Your task to perform on an android device: toggle priority inbox in the gmail app Image 0: 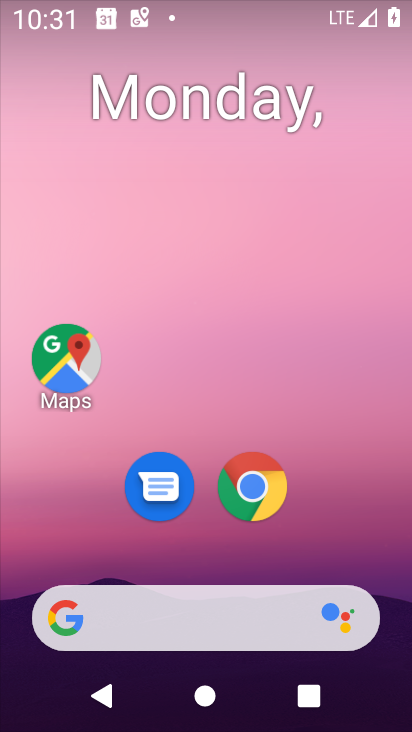
Step 0: drag from (362, 534) to (342, 34)
Your task to perform on an android device: toggle priority inbox in the gmail app Image 1: 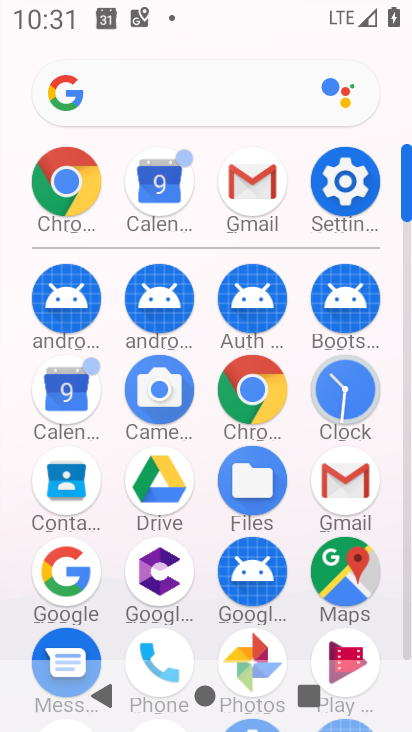
Step 1: drag from (2, 610) to (23, 246)
Your task to perform on an android device: toggle priority inbox in the gmail app Image 2: 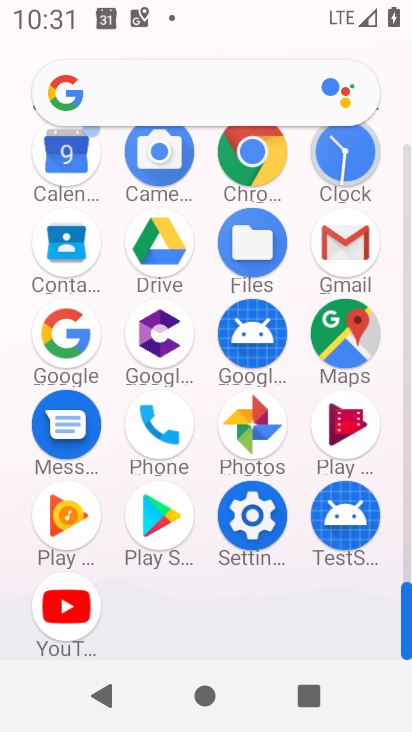
Step 2: click (342, 234)
Your task to perform on an android device: toggle priority inbox in the gmail app Image 3: 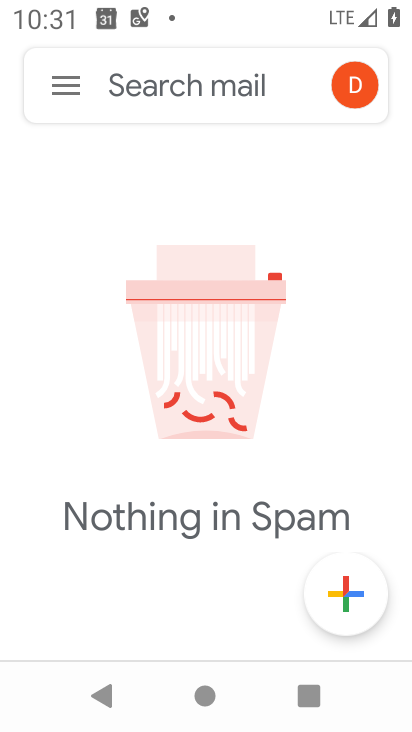
Step 3: click (76, 92)
Your task to perform on an android device: toggle priority inbox in the gmail app Image 4: 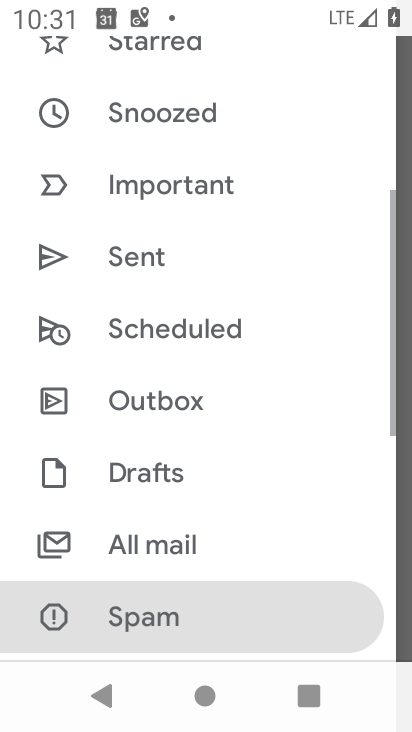
Step 4: drag from (232, 585) to (254, 120)
Your task to perform on an android device: toggle priority inbox in the gmail app Image 5: 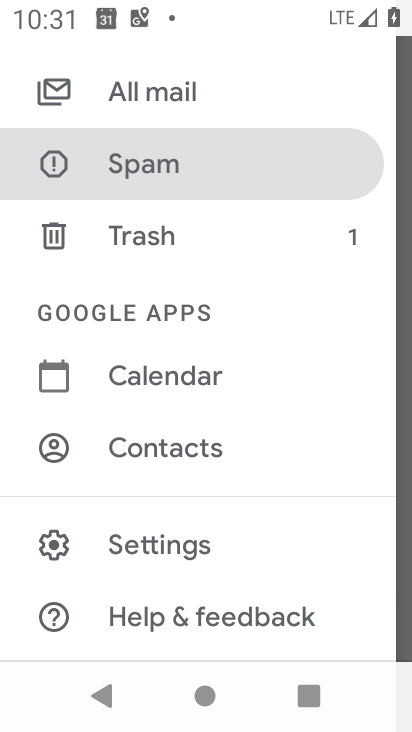
Step 5: click (188, 544)
Your task to perform on an android device: toggle priority inbox in the gmail app Image 6: 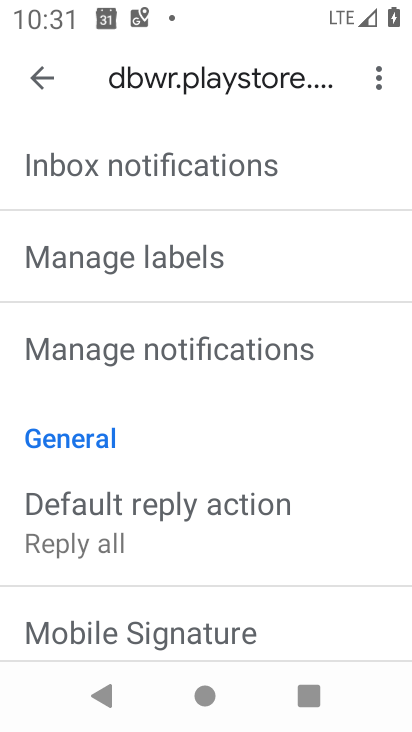
Step 6: drag from (236, 569) to (273, 123)
Your task to perform on an android device: toggle priority inbox in the gmail app Image 7: 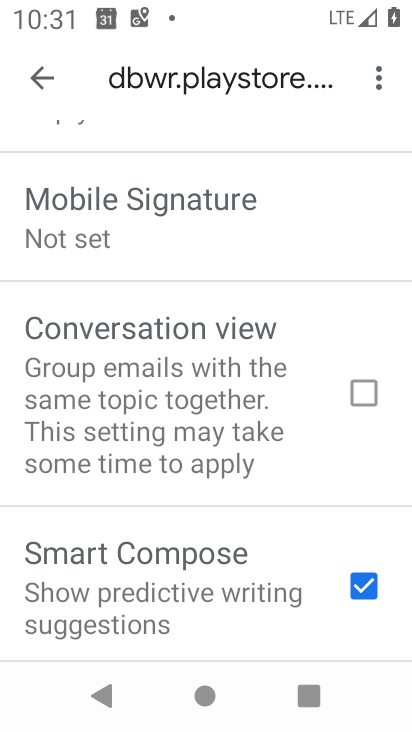
Step 7: drag from (253, 507) to (277, 107)
Your task to perform on an android device: toggle priority inbox in the gmail app Image 8: 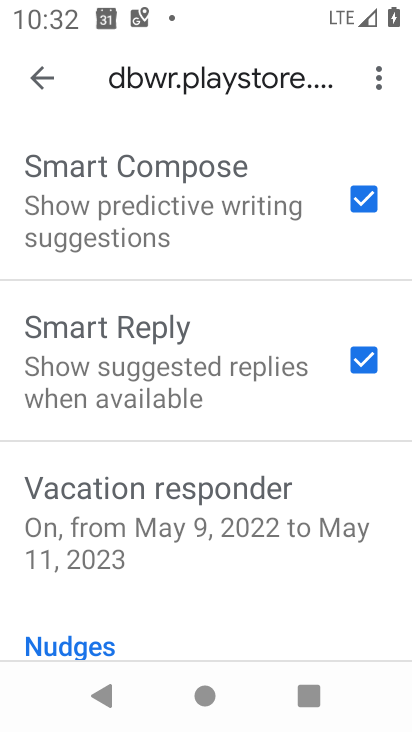
Step 8: drag from (249, 534) to (246, 148)
Your task to perform on an android device: toggle priority inbox in the gmail app Image 9: 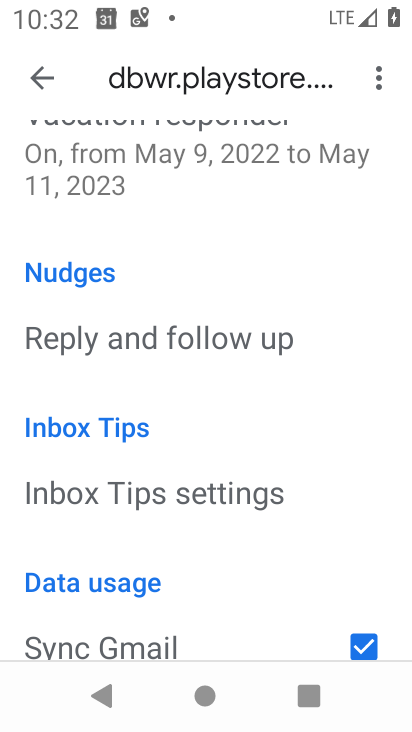
Step 9: drag from (238, 161) to (233, 558)
Your task to perform on an android device: toggle priority inbox in the gmail app Image 10: 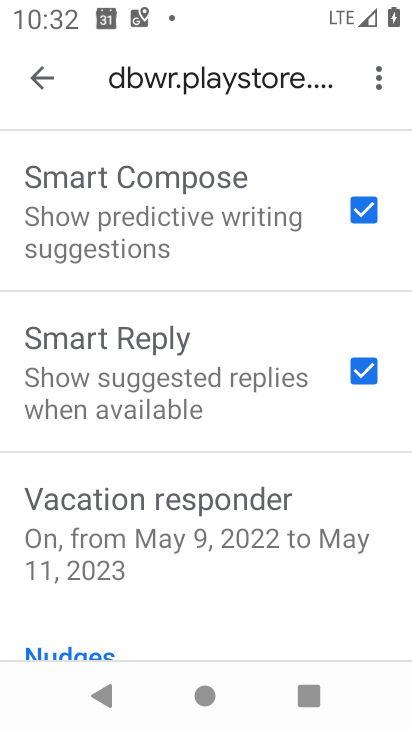
Step 10: drag from (212, 189) to (211, 478)
Your task to perform on an android device: toggle priority inbox in the gmail app Image 11: 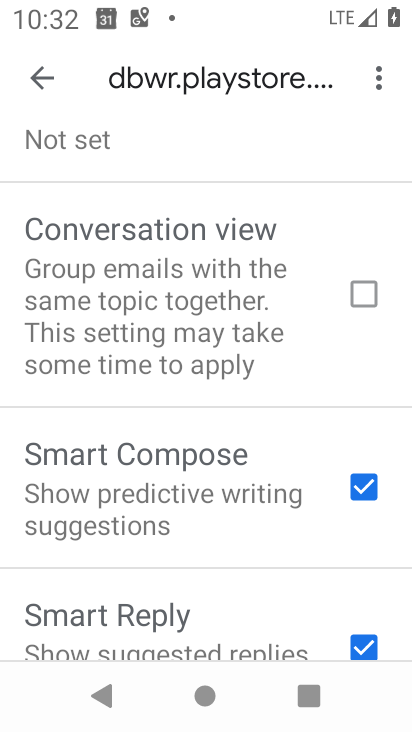
Step 11: drag from (176, 218) to (184, 509)
Your task to perform on an android device: toggle priority inbox in the gmail app Image 12: 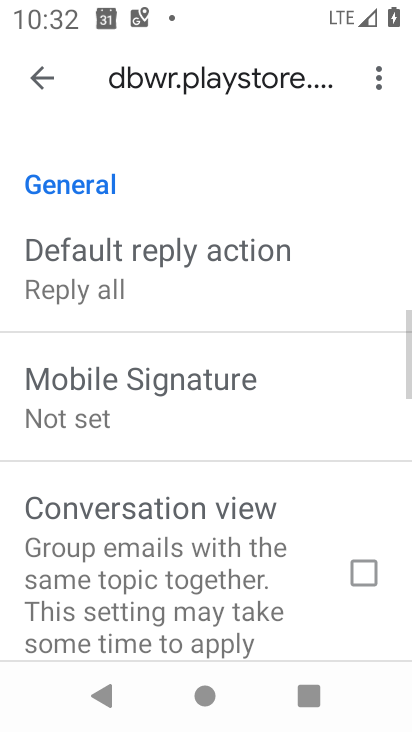
Step 12: drag from (207, 553) to (238, 147)
Your task to perform on an android device: toggle priority inbox in the gmail app Image 13: 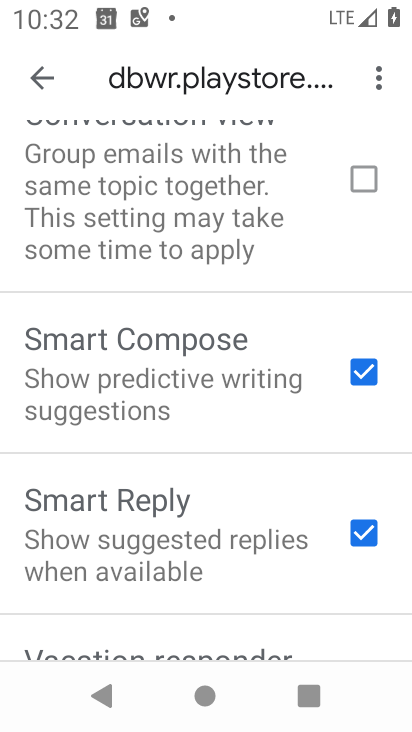
Step 13: drag from (233, 144) to (234, 516)
Your task to perform on an android device: toggle priority inbox in the gmail app Image 14: 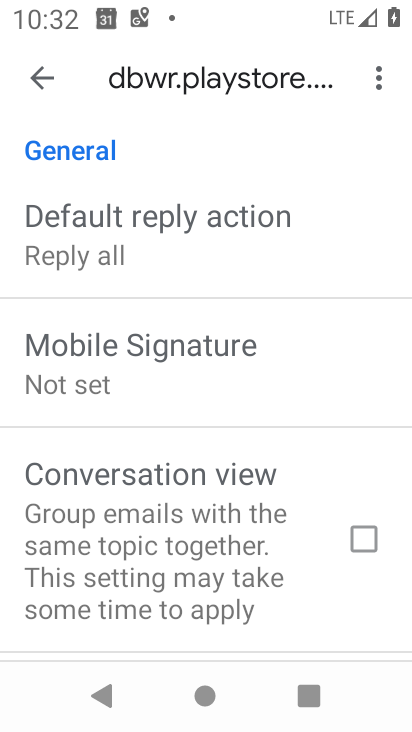
Step 14: drag from (260, 304) to (240, 518)
Your task to perform on an android device: toggle priority inbox in the gmail app Image 15: 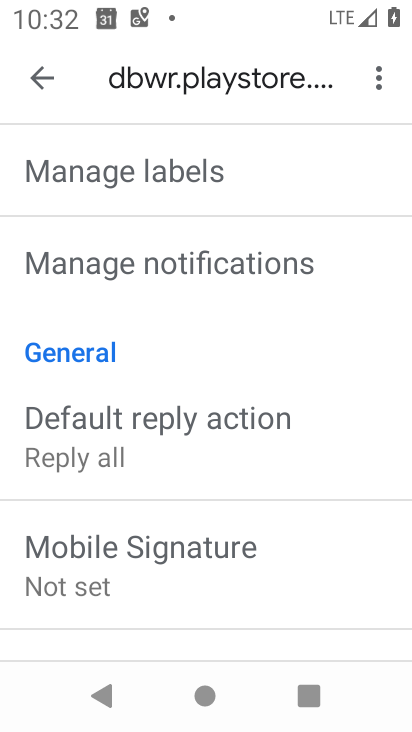
Step 15: drag from (182, 230) to (197, 617)
Your task to perform on an android device: toggle priority inbox in the gmail app Image 16: 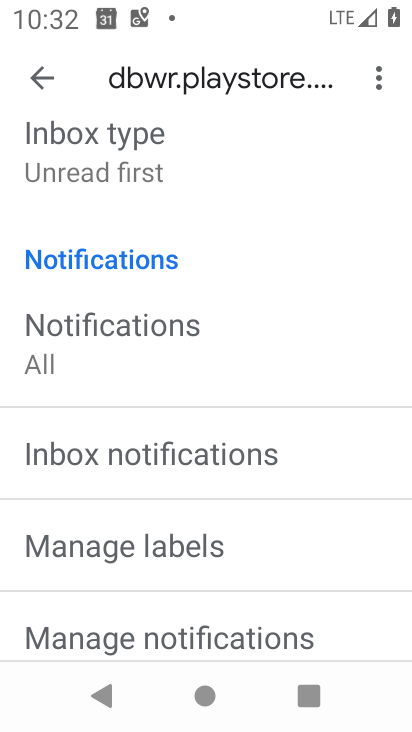
Step 16: click (183, 142)
Your task to perform on an android device: toggle priority inbox in the gmail app Image 17: 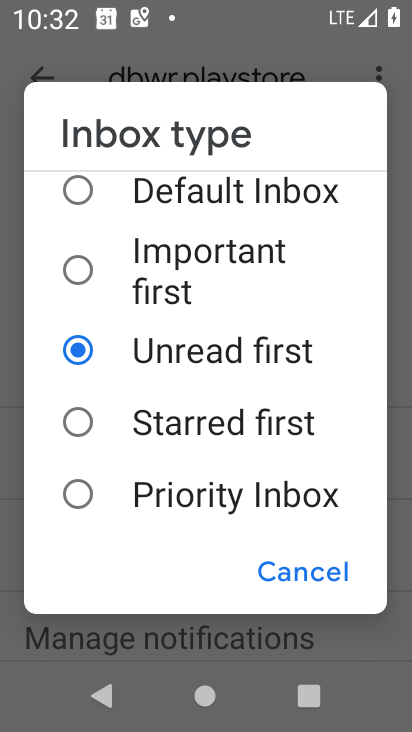
Step 17: click (138, 505)
Your task to perform on an android device: toggle priority inbox in the gmail app Image 18: 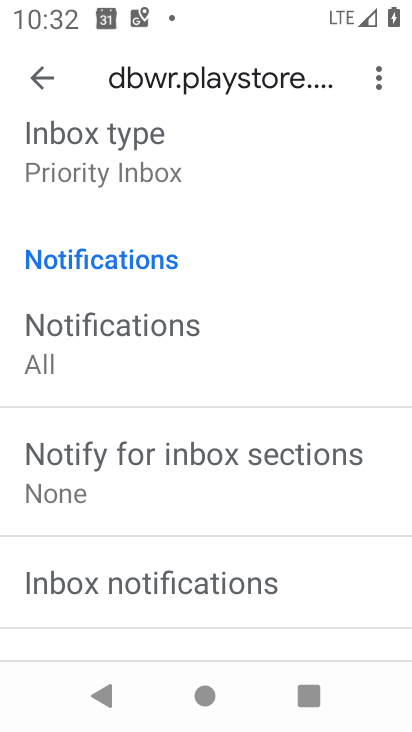
Step 18: task complete